Your task to perform on an android device: change notifications settings Image 0: 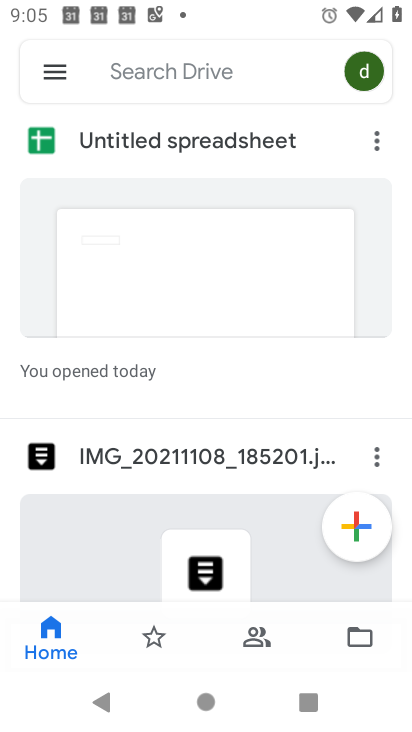
Step 0: press home button
Your task to perform on an android device: change notifications settings Image 1: 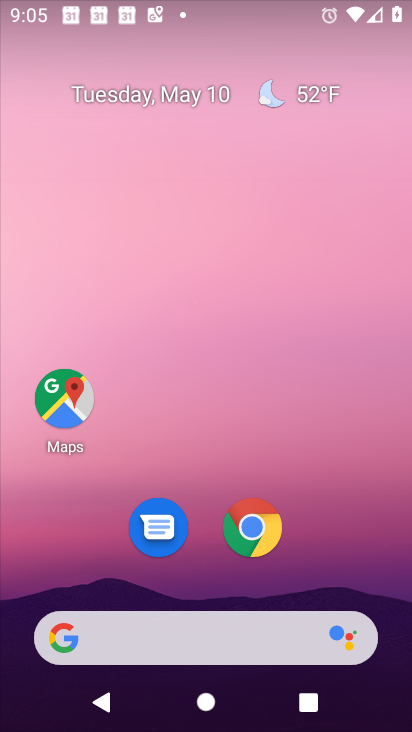
Step 1: drag from (317, 533) to (157, 95)
Your task to perform on an android device: change notifications settings Image 2: 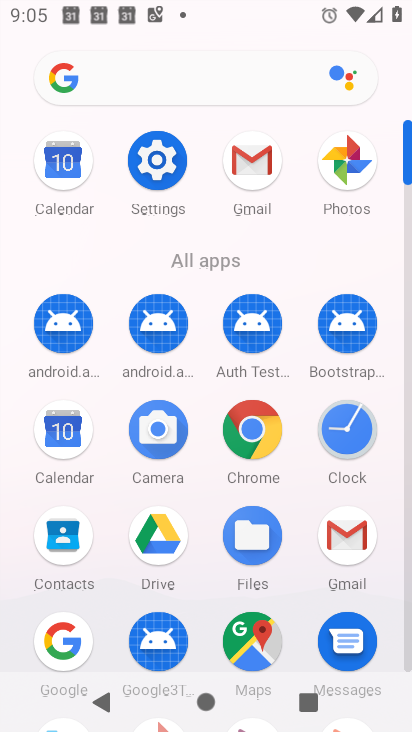
Step 2: click (164, 173)
Your task to perform on an android device: change notifications settings Image 3: 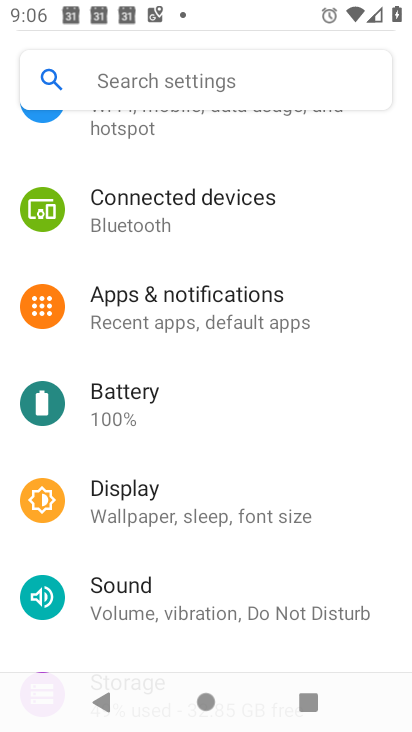
Step 3: click (191, 302)
Your task to perform on an android device: change notifications settings Image 4: 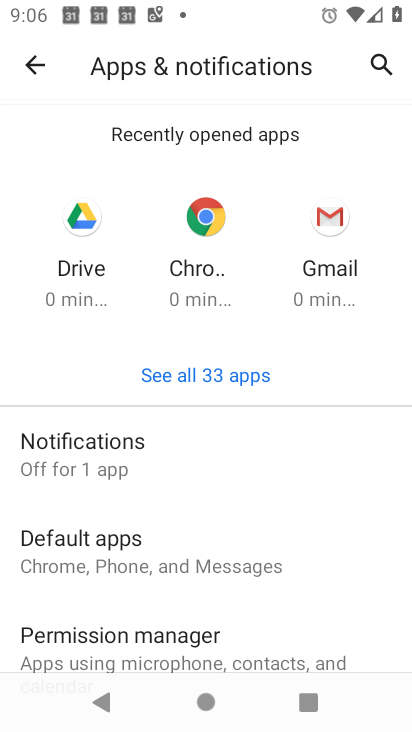
Step 4: click (108, 461)
Your task to perform on an android device: change notifications settings Image 5: 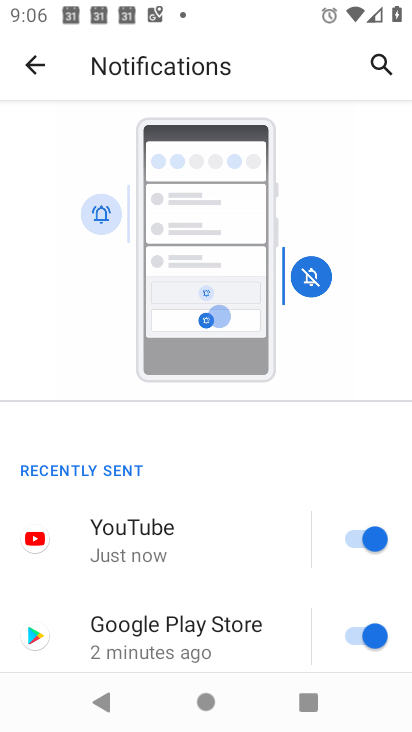
Step 5: drag from (144, 510) to (156, 300)
Your task to perform on an android device: change notifications settings Image 6: 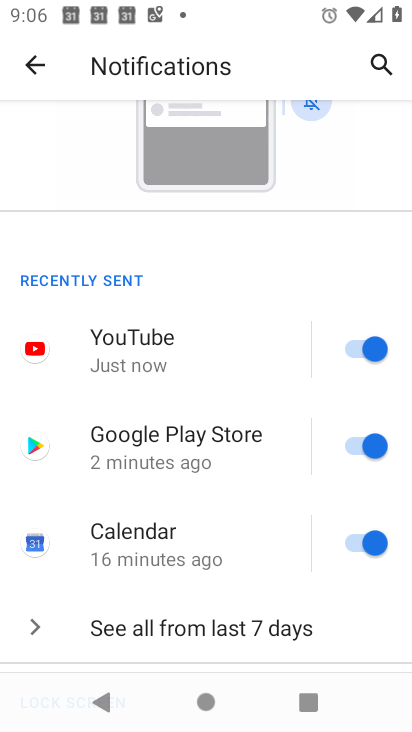
Step 6: drag from (265, 592) to (271, 440)
Your task to perform on an android device: change notifications settings Image 7: 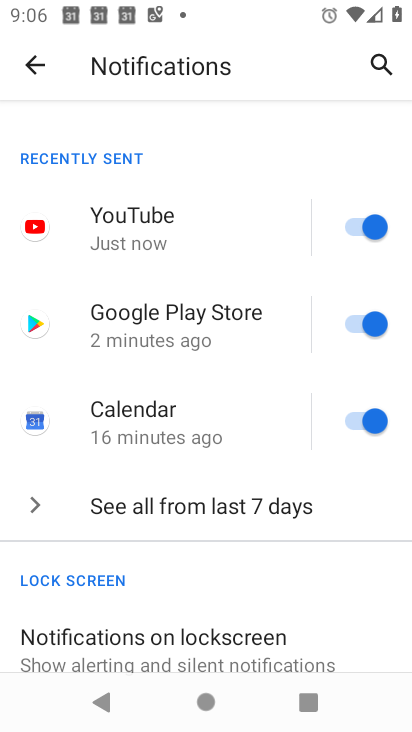
Step 7: click (359, 419)
Your task to perform on an android device: change notifications settings Image 8: 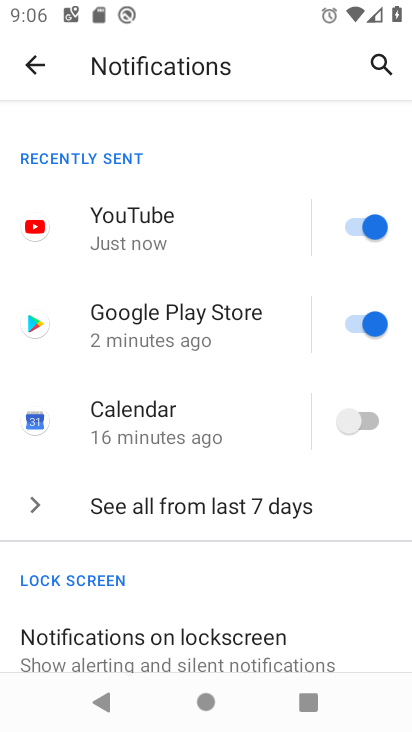
Step 8: click (370, 326)
Your task to perform on an android device: change notifications settings Image 9: 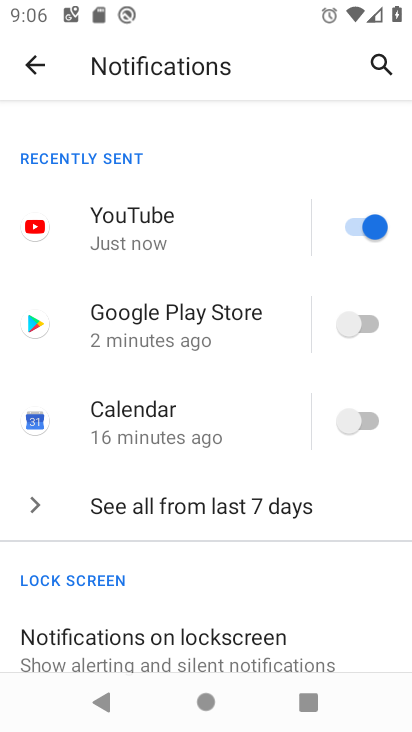
Step 9: click (377, 222)
Your task to perform on an android device: change notifications settings Image 10: 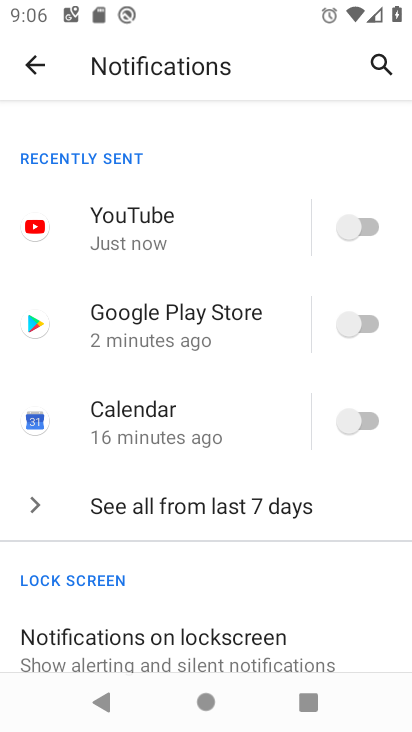
Step 10: task complete